Your task to perform on an android device: Find coffee shops on Maps Image 0: 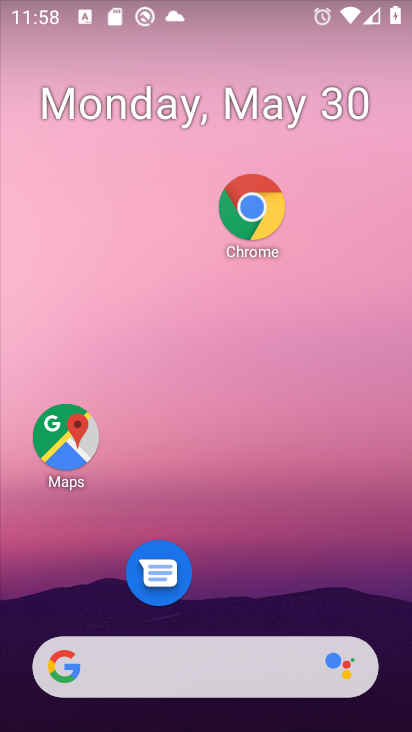
Step 0: drag from (272, 542) to (272, 85)
Your task to perform on an android device: Find coffee shops on Maps Image 1: 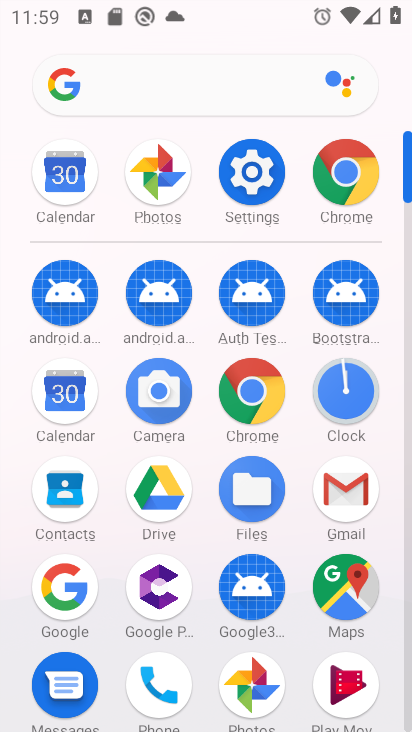
Step 1: click (347, 595)
Your task to perform on an android device: Find coffee shops on Maps Image 2: 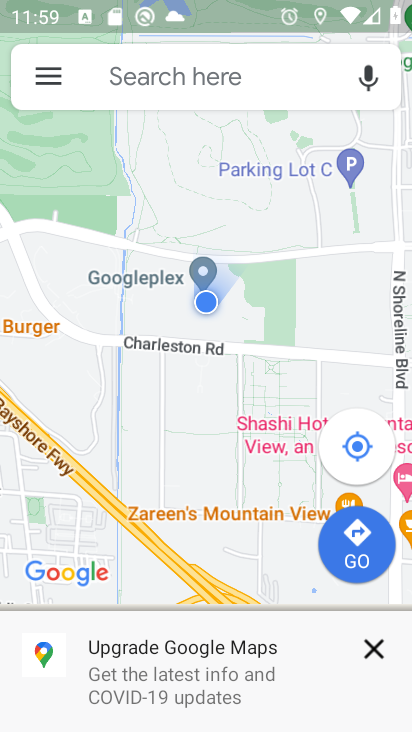
Step 2: click (251, 80)
Your task to perform on an android device: Find coffee shops on Maps Image 3: 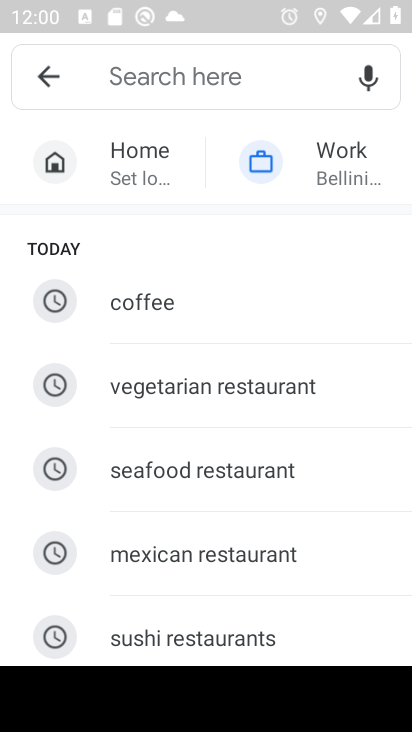
Step 3: type "coffee shops"
Your task to perform on an android device: Find coffee shops on Maps Image 4: 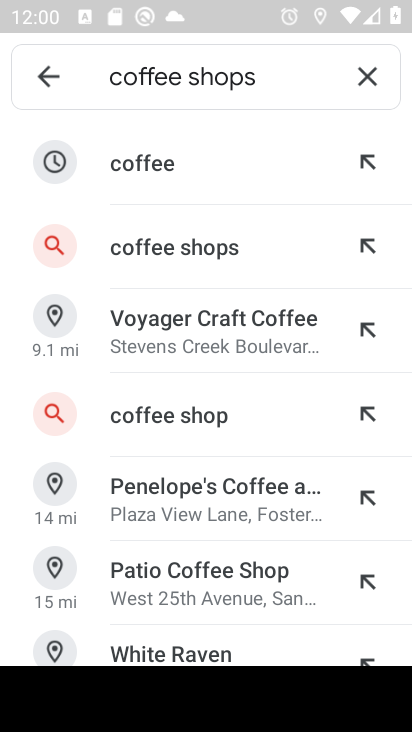
Step 4: click (240, 254)
Your task to perform on an android device: Find coffee shops on Maps Image 5: 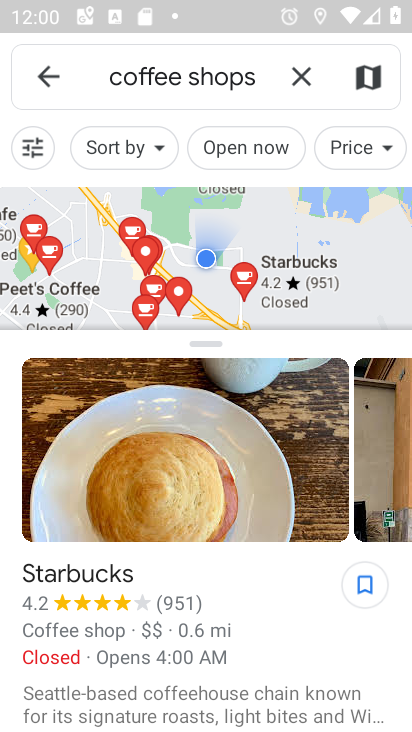
Step 5: task complete